Your task to perform on an android device: check the backup settings in the google photos Image 0: 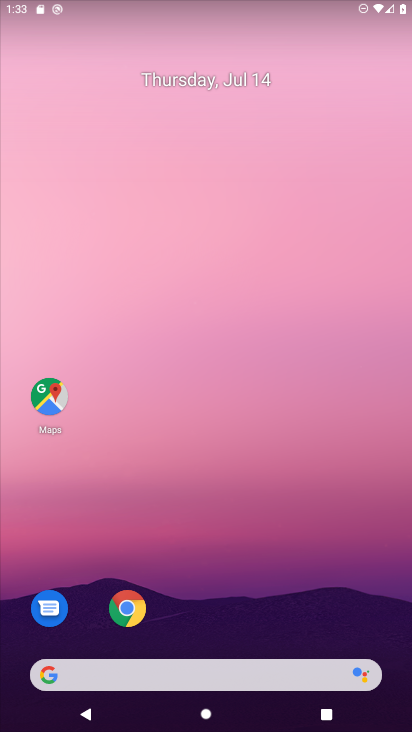
Step 0: drag from (228, 727) to (190, 111)
Your task to perform on an android device: check the backup settings in the google photos Image 1: 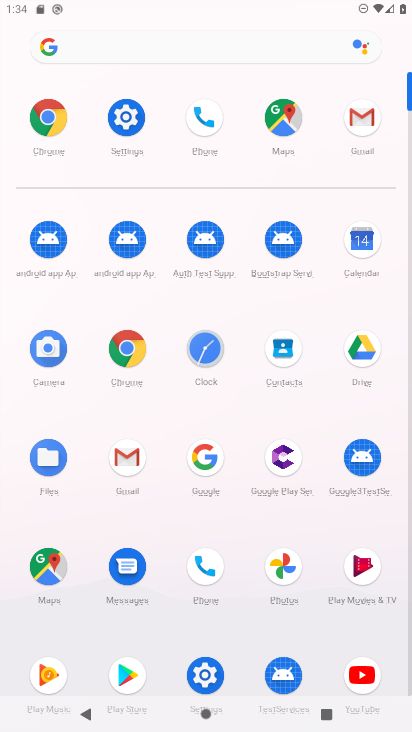
Step 1: click (286, 564)
Your task to perform on an android device: check the backup settings in the google photos Image 2: 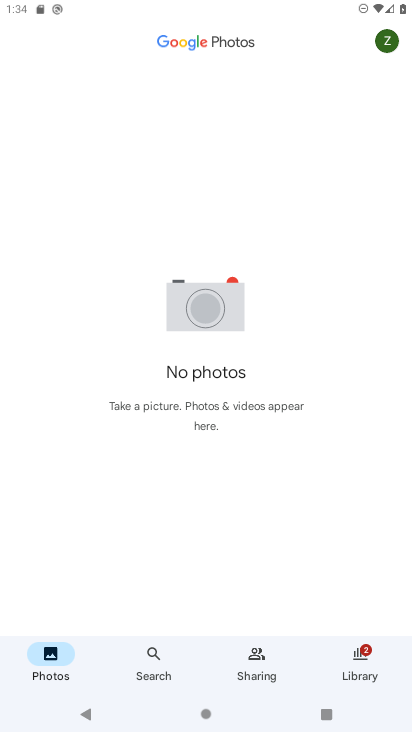
Step 2: click (387, 38)
Your task to perform on an android device: check the backup settings in the google photos Image 3: 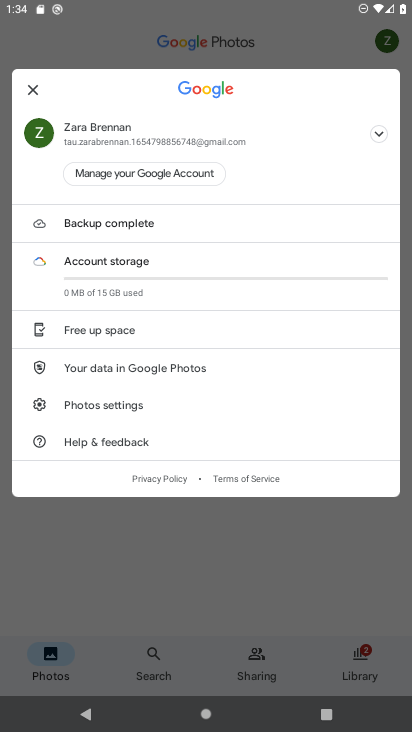
Step 3: click (111, 402)
Your task to perform on an android device: check the backup settings in the google photos Image 4: 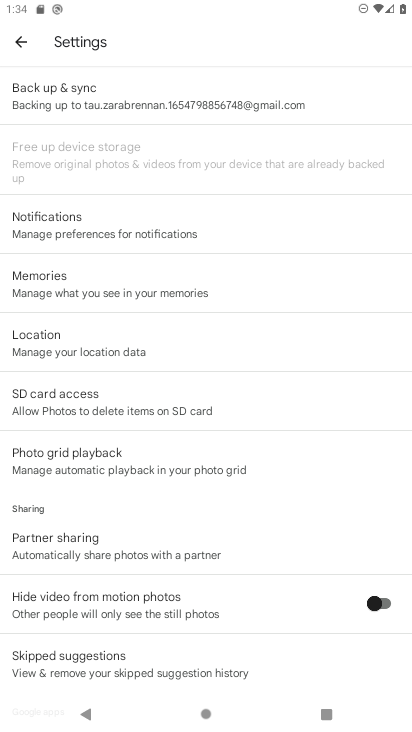
Step 4: click (58, 89)
Your task to perform on an android device: check the backup settings in the google photos Image 5: 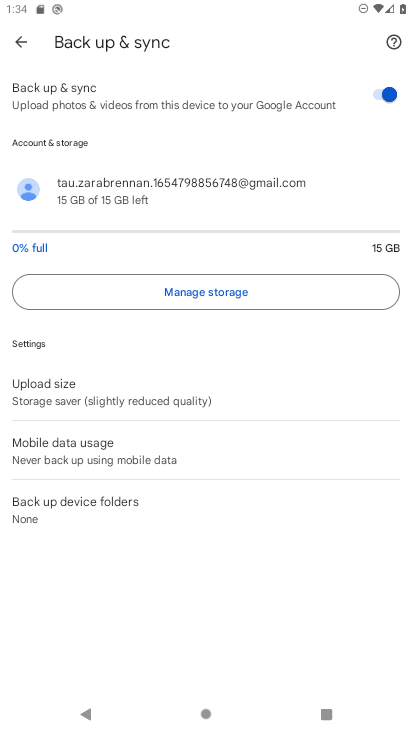
Step 5: task complete